Your task to perform on an android device: toggle wifi Image 0: 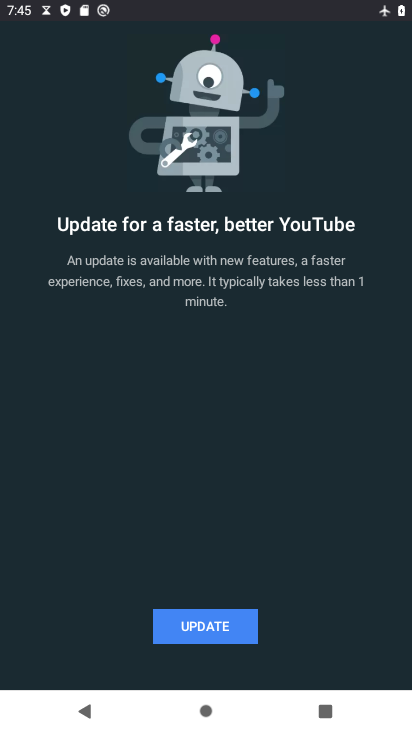
Step 0: press home button
Your task to perform on an android device: toggle wifi Image 1: 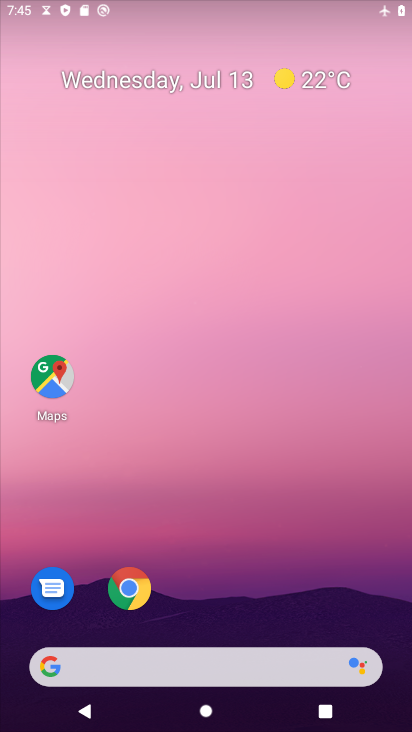
Step 1: drag from (306, 637) to (267, 380)
Your task to perform on an android device: toggle wifi Image 2: 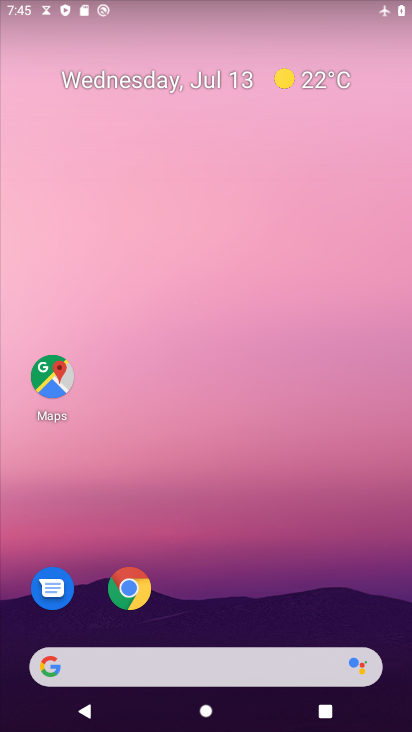
Step 2: drag from (212, 563) to (398, 144)
Your task to perform on an android device: toggle wifi Image 3: 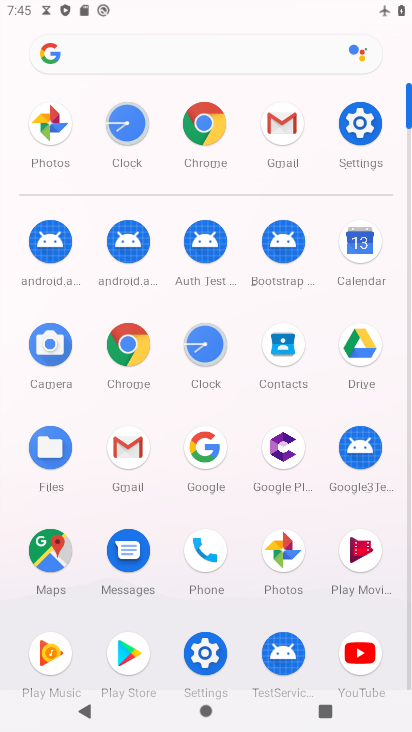
Step 3: click (351, 129)
Your task to perform on an android device: toggle wifi Image 4: 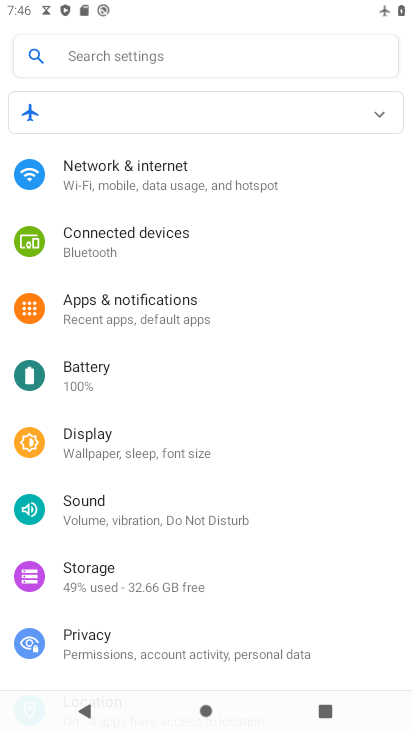
Step 4: click (170, 161)
Your task to perform on an android device: toggle wifi Image 5: 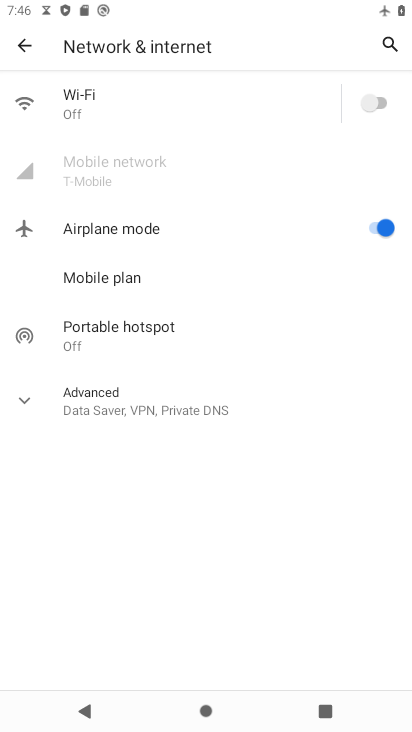
Step 5: click (167, 88)
Your task to perform on an android device: toggle wifi Image 6: 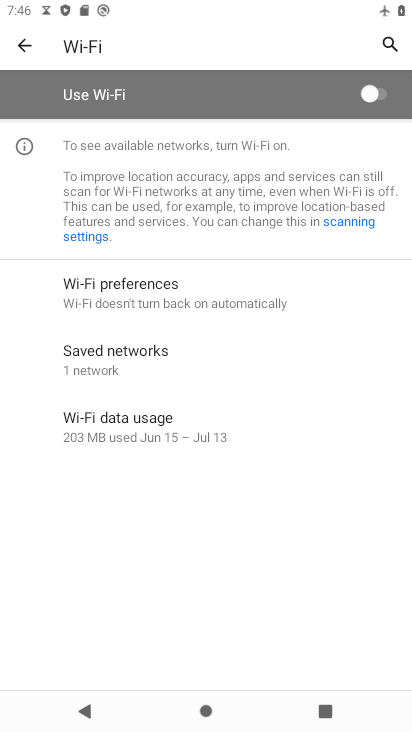
Step 6: click (376, 90)
Your task to perform on an android device: toggle wifi Image 7: 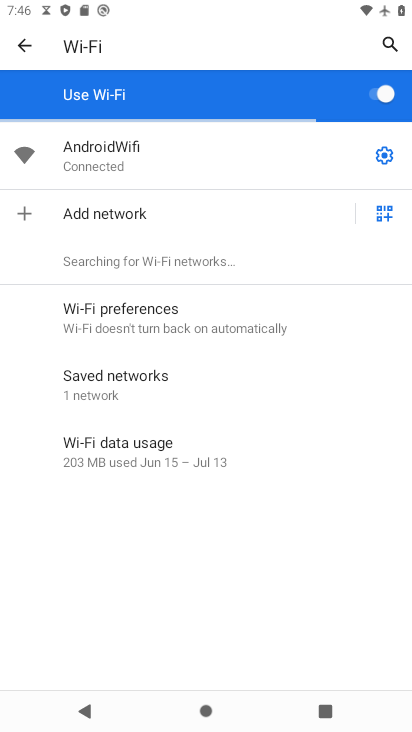
Step 7: task complete